Your task to perform on an android device: open the mobile data screen to see how much data has been used Image 0: 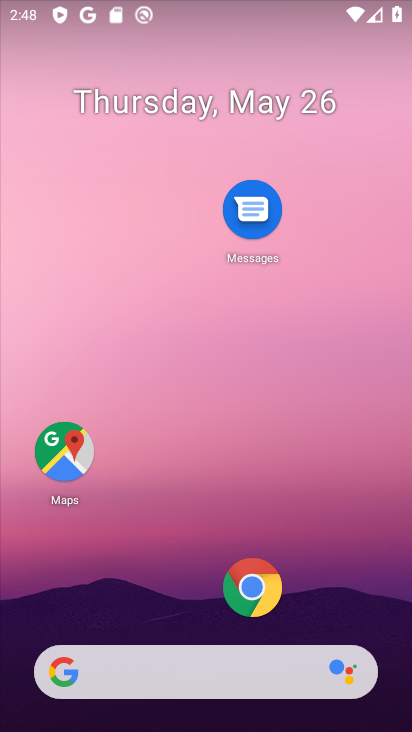
Step 0: drag from (182, 613) to (200, 124)
Your task to perform on an android device: open the mobile data screen to see how much data has been used Image 1: 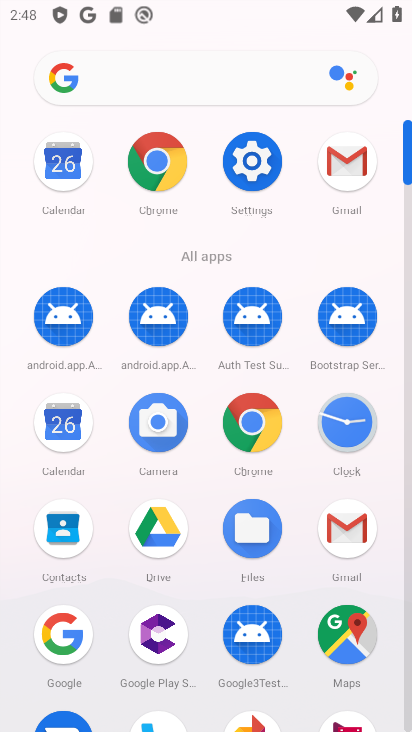
Step 1: click (239, 184)
Your task to perform on an android device: open the mobile data screen to see how much data has been used Image 2: 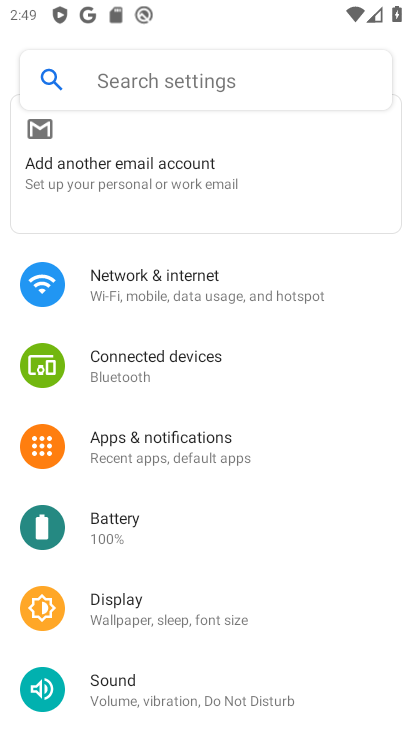
Step 2: drag from (187, 498) to (203, 379)
Your task to perform on an android device: open the mobile data screen to see how much data has been used Image 3: 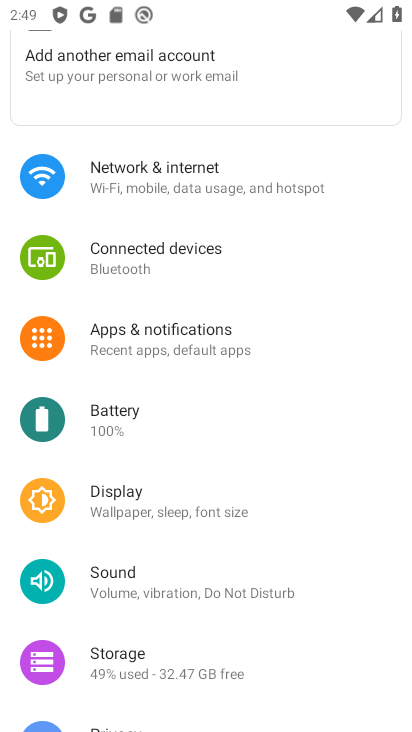
Step 3: click (171, 185)
Your task to perform on an android device: open the mobile data screen to see how much data has been used Image 4: 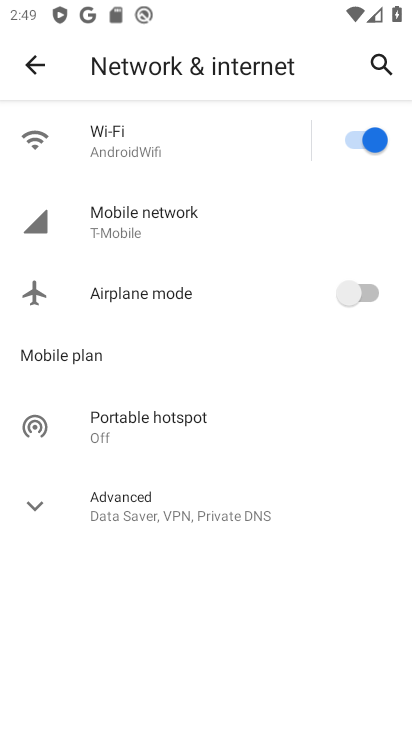
Step 4: click (168, 231)
Your task to perform on an android device: open the mobile data screen to see how much data has been used Image 5: 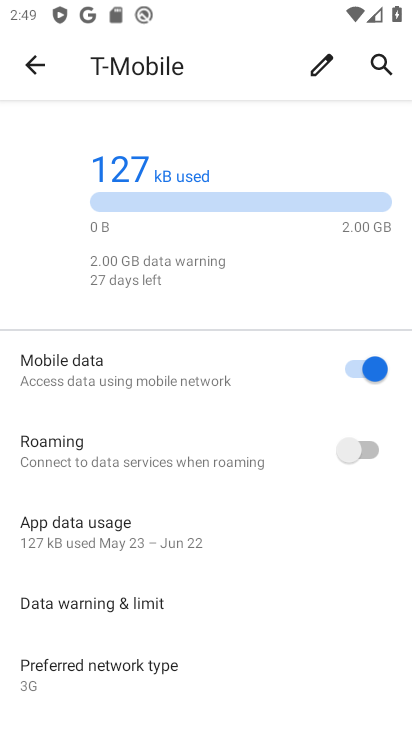
Step 5: click (188, 541)
Your task to perform on an android device: open the mobile data screen to see how much data has been used Image 6: 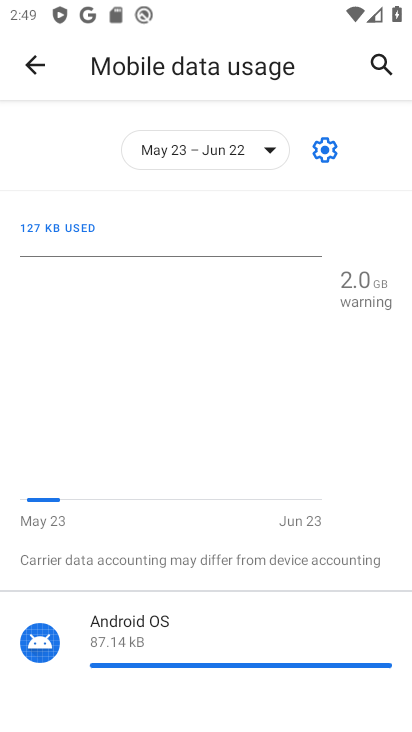
Step 6: task complete